Your task to perform on an android device: turn on wifi Image 0: 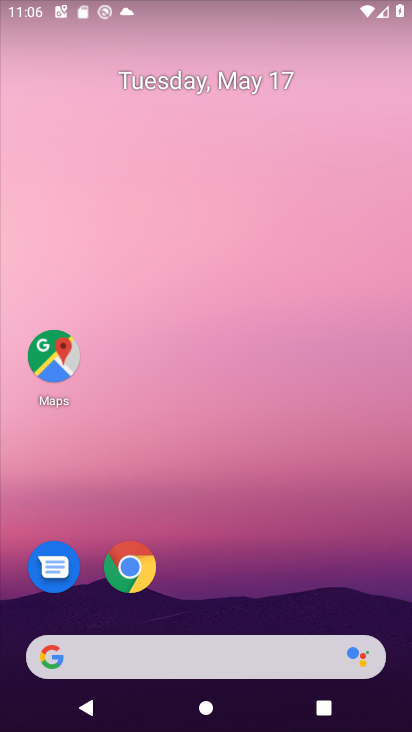
Step 0: drag from (158, 39) to (239, 539)
Your task to perform on an android device: turn on wifi Image 1: 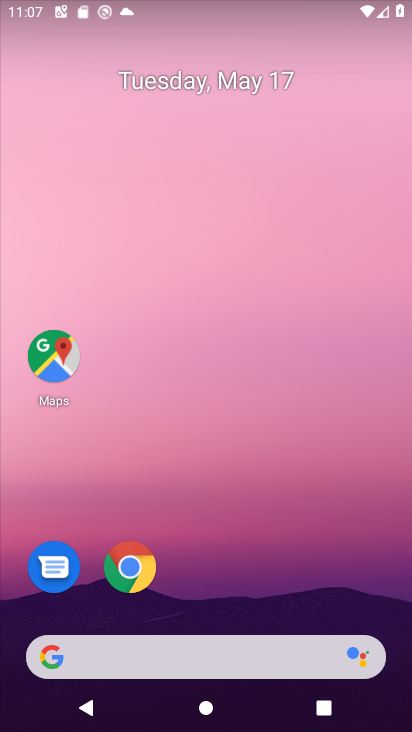
Step 1: task complete